Your task to perform on an android device: Open the stopwatch Image 0: 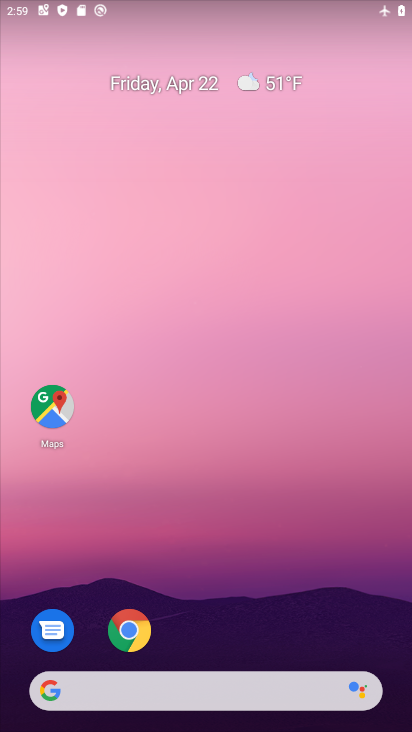
Step 0: drag from (316, 538) to (264, 7)
Your task to perform on an android device: Open the stopwatch Image 1: 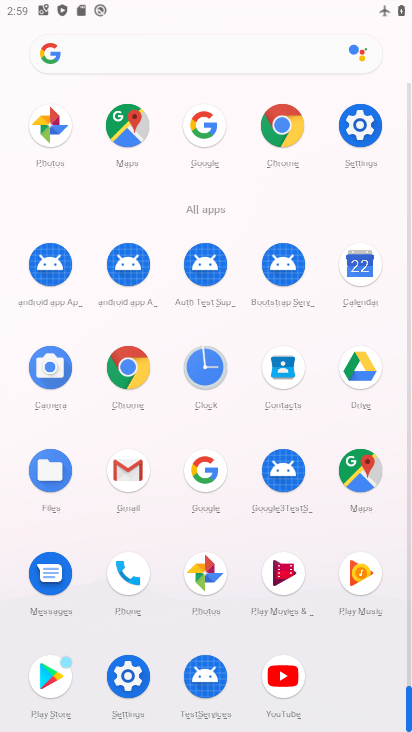
Step 1: drag from (13, 542) to (22, 276)
Your task to perform on an android device: Open the stopwatch Image 2: 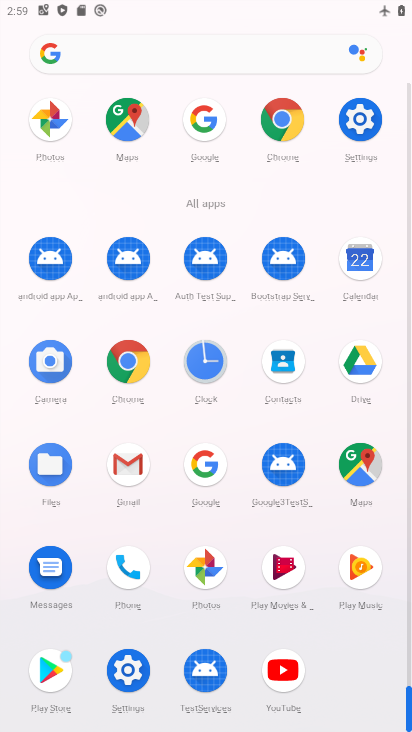
Step 2: click (203, 359)
Your task to perform on an android device: Open the stopwatch Image 3: 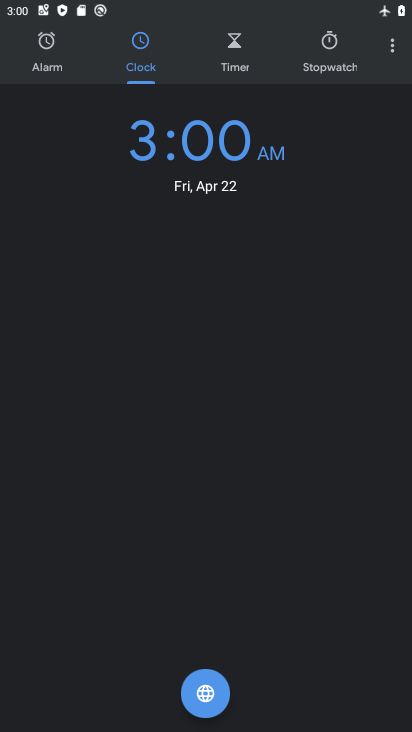
Step 3: click (322, 51)
Your task to perform on an android device: Open the stopwatch Image 4: 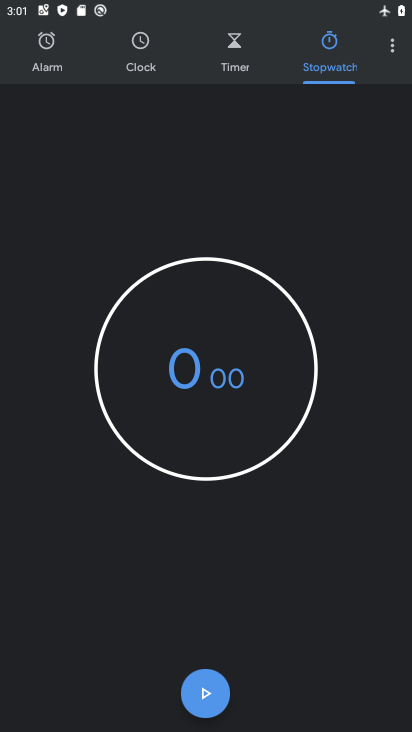
Step 4: task complete